Your task to perform on an android device: add a label to a message in the gmail app Image 0: 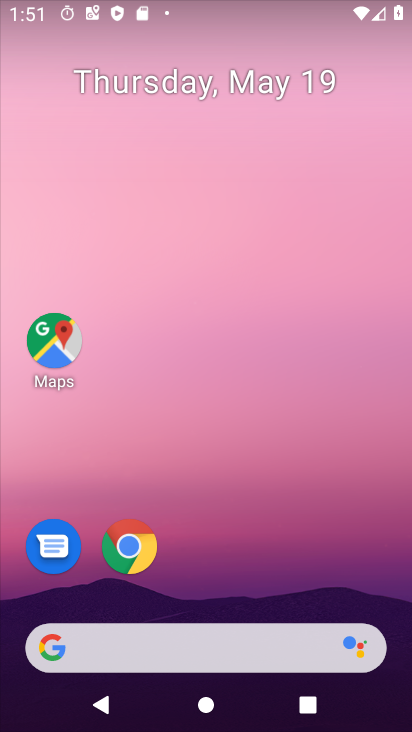
Step 0: drag from (193, 595) to (267, 80)
Your task to perform on an android device: add a label to a message in the gmail app Image 1: 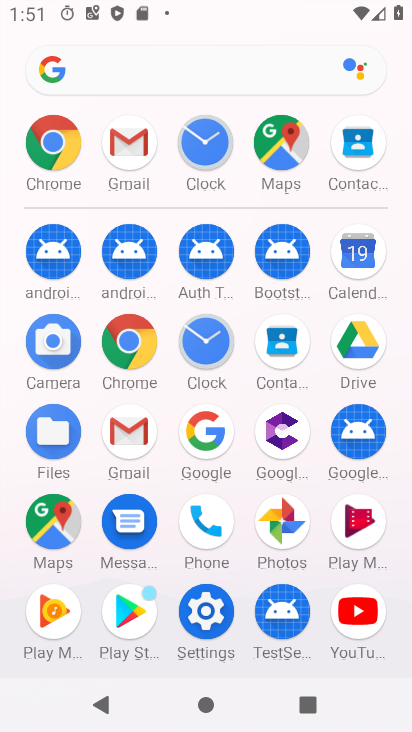
Step 1: click (118, 163)
Your task to perform on an android device: add a label to a message in the gmail app Image 2: 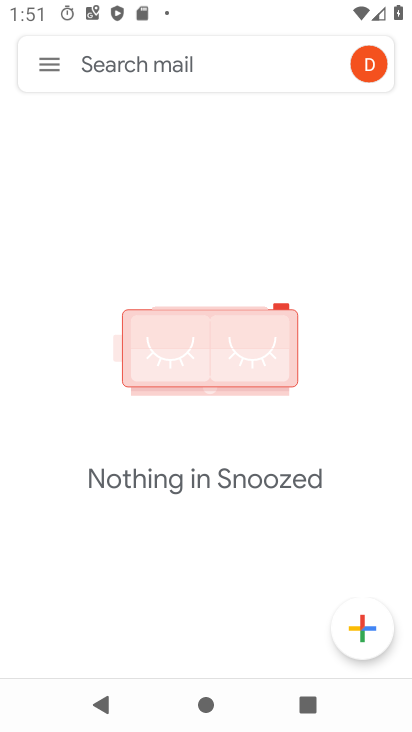
Step 2: click (46, 69)
Your task to perform on an android device: add a label to a message in the gmail app Image 3: 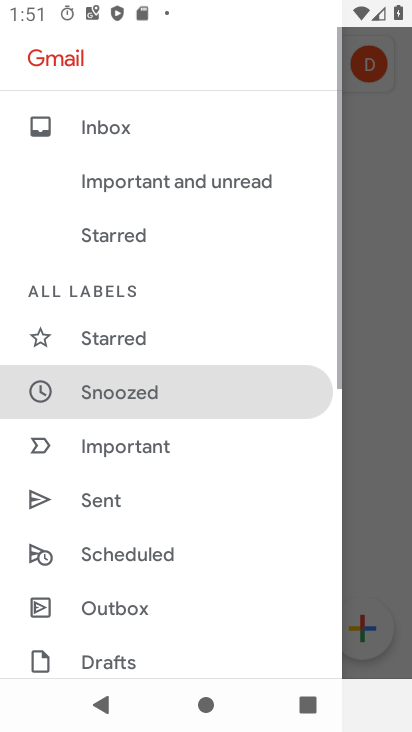
Step 3: click (114, 142)
Your task to perform on an android device: add a label to a message in the gmail app Image 4: 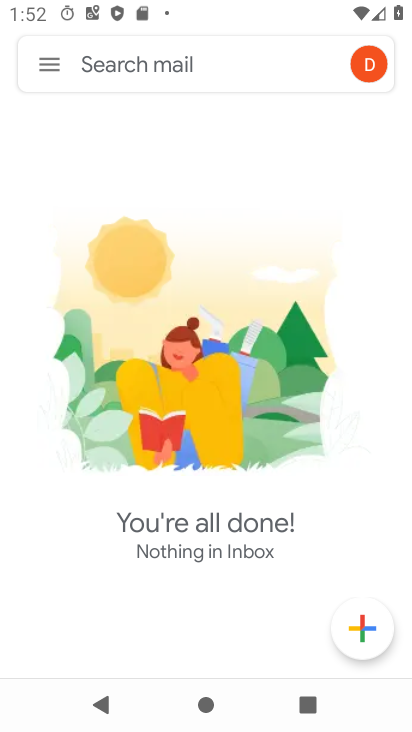
Step 4: task complete